Your task to perform on an android device: turn off wifi Image 0: 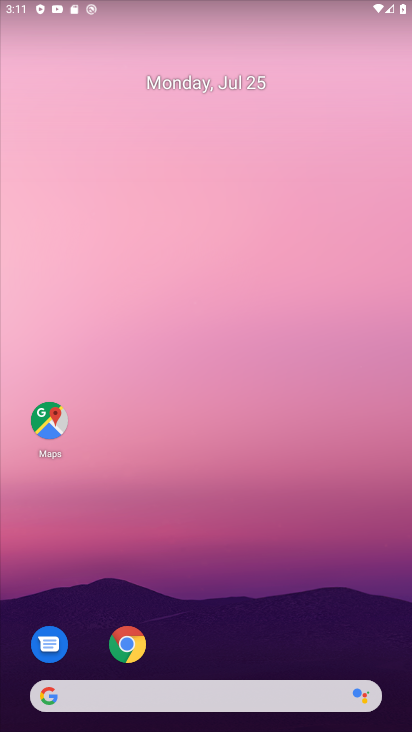
Step 0: drag from (239, 654) to (196, 62)
Your task to perform on an android device: turn off wifi Image 1: 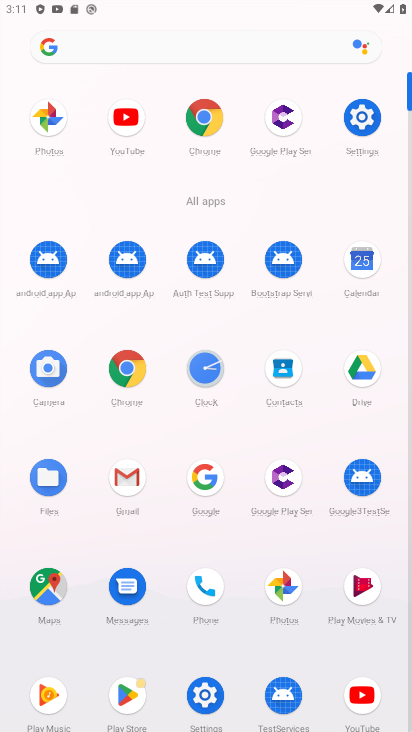
Step 1: click (347, 122)
Your task to perform on an android device: turn off wifi Image 2: 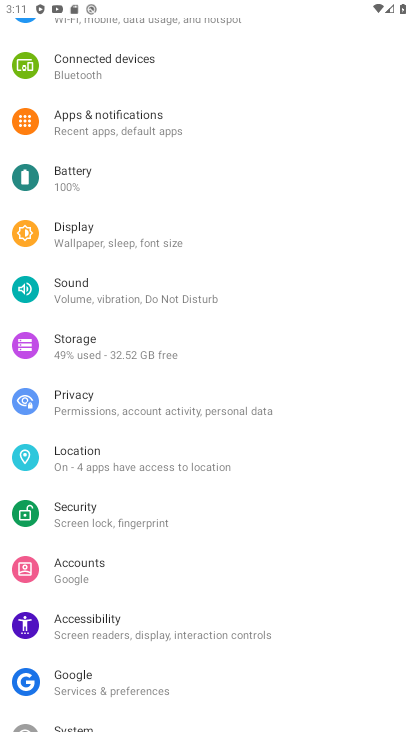
Step 2: drag from (197, 41) to (202, 362)
Your task to perform on an android device: turn off wifi Image 3: 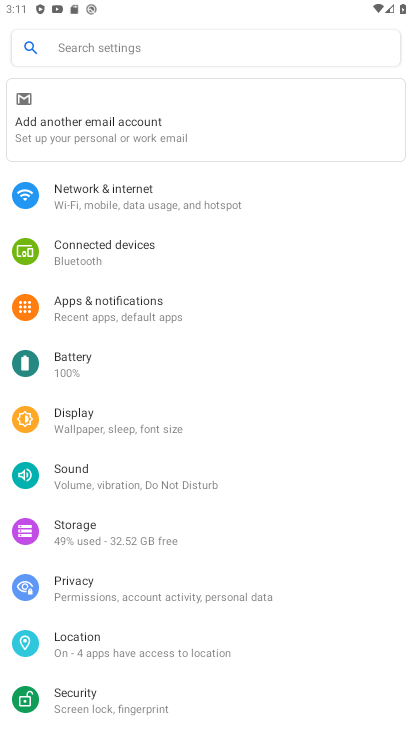
Step 3: click (180, 191)
Your task to perform on an android device: turn off wifi Image 4: 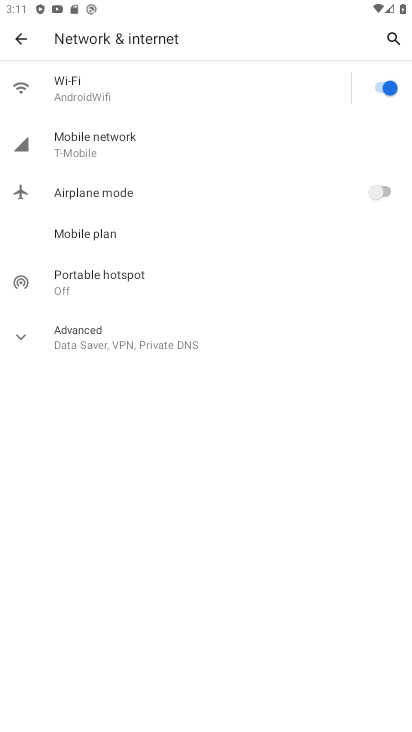
Step 4: click (387, 88)
Your task to perform on an android device: turn off wifi Image 5: 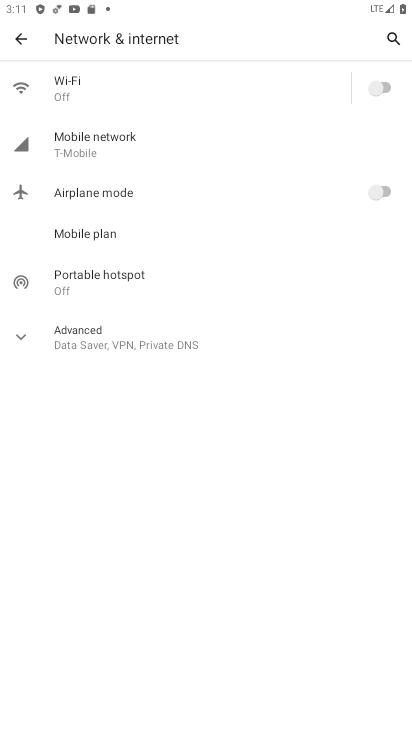
Step 5: task complete